Your task to perform on an android device: Open calendar and show me the first week of next month Image 0: 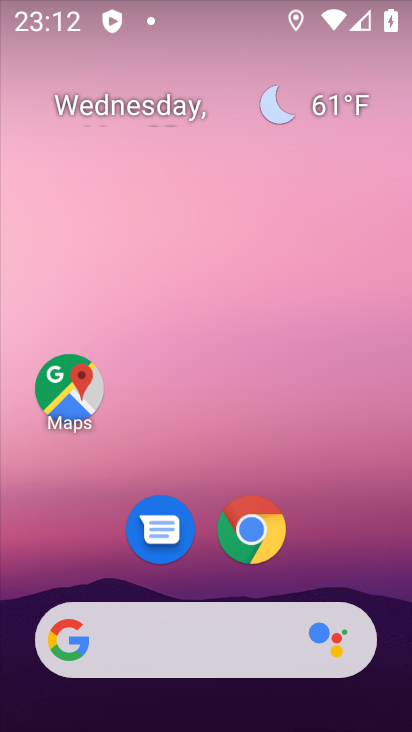
Step 0: drag from (366, 580) to (361, 164)
Your task to perform on an android device: Open calendar and show me the first week of next month Image 1: 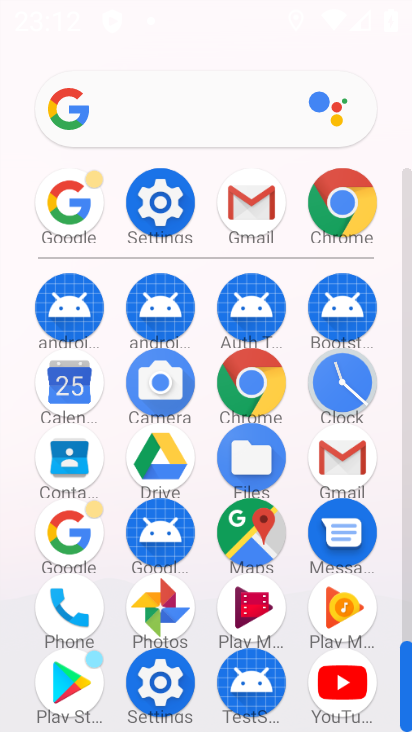
Step 1: click (75, 395)
Your task to perform on an android device: Open calendar and show me the first week of next month Image 2: 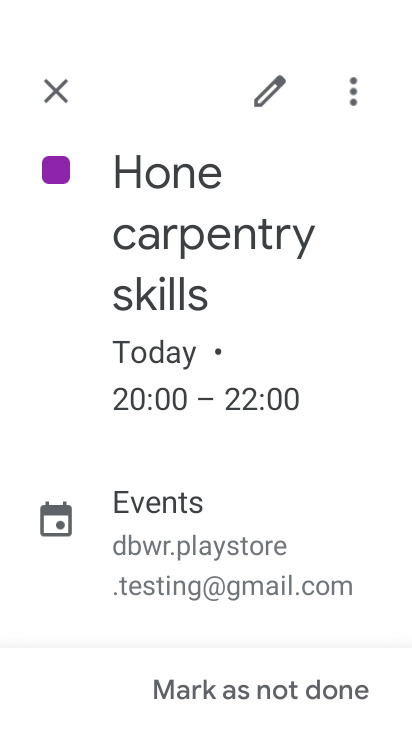
Step 2: click (53, 91)
Your task to perform on an android device: Open calendar and show me the first week of next month Image 3: 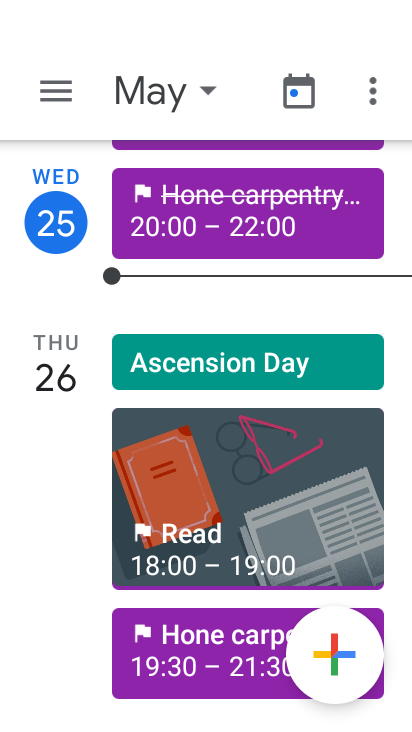
Step 3: click (200, 92)
Your task to perform on an android device: Open calendar and show me the first week of next month Image 4: 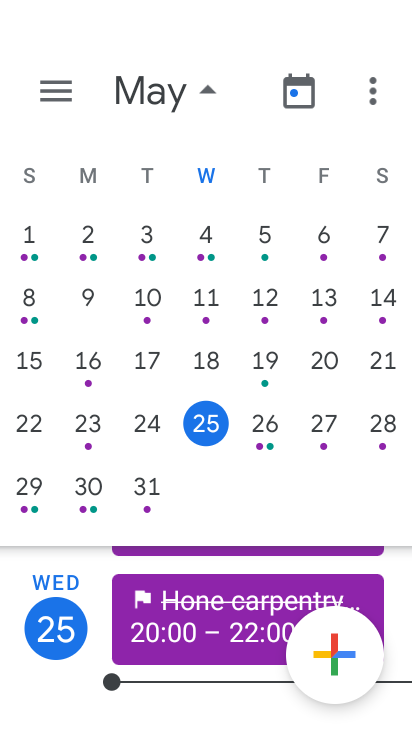
Step 4: drag from (398, 201) to (2, 191)
Your task to perform on an android device: Open calendar and show me the first week of next month Image 5: 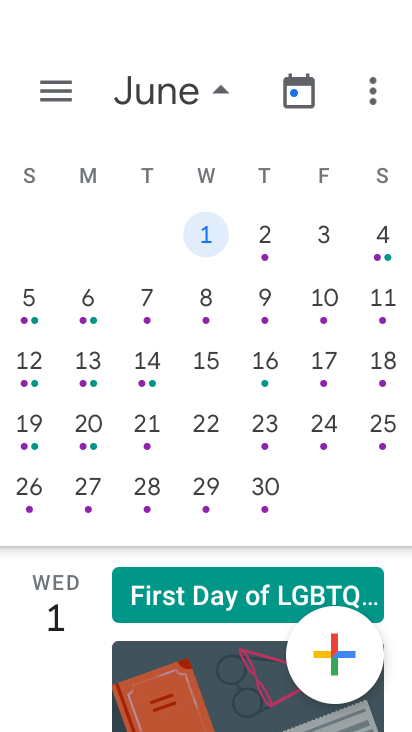
Step 5: click (251, 240)
Your task to perform on an android device: Open calendar and show me the first week of next month Image 6: 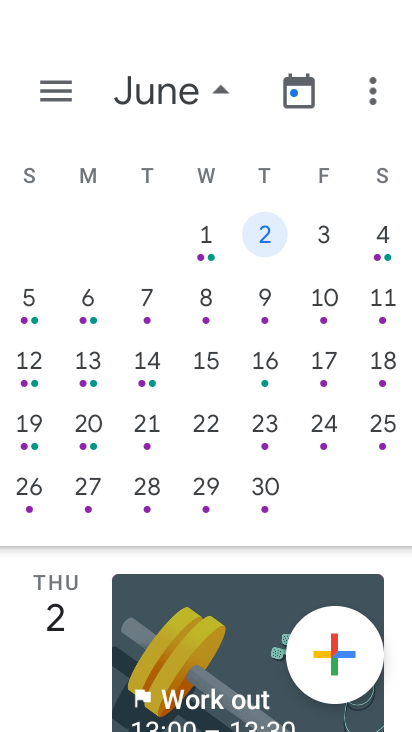
Step 6: task complete